Your task to perform on an android device: toggle notifications settings in the gmail app Image 0: 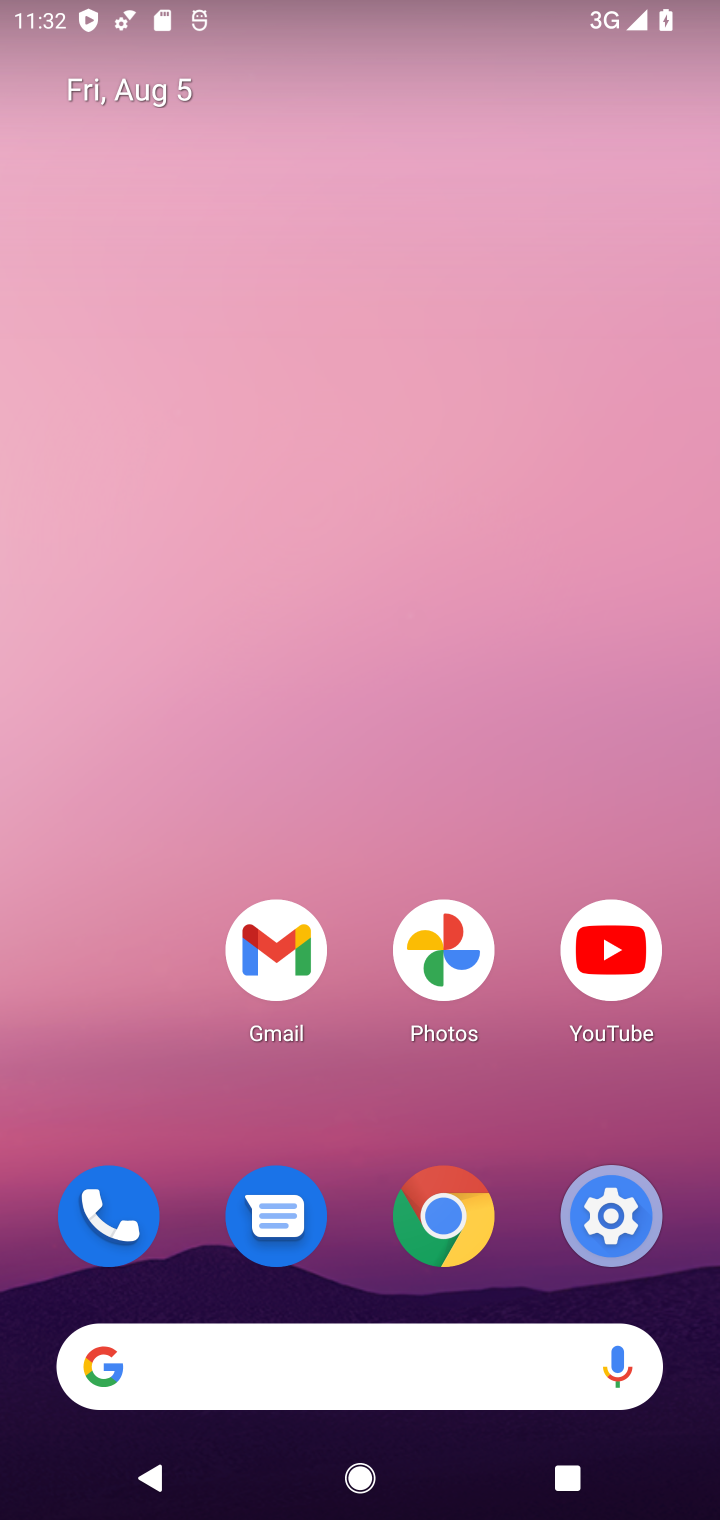
Step 0: click (265, 979)
Your task to perform on an android device: toggle notifications settings in the gmail app Image 1: 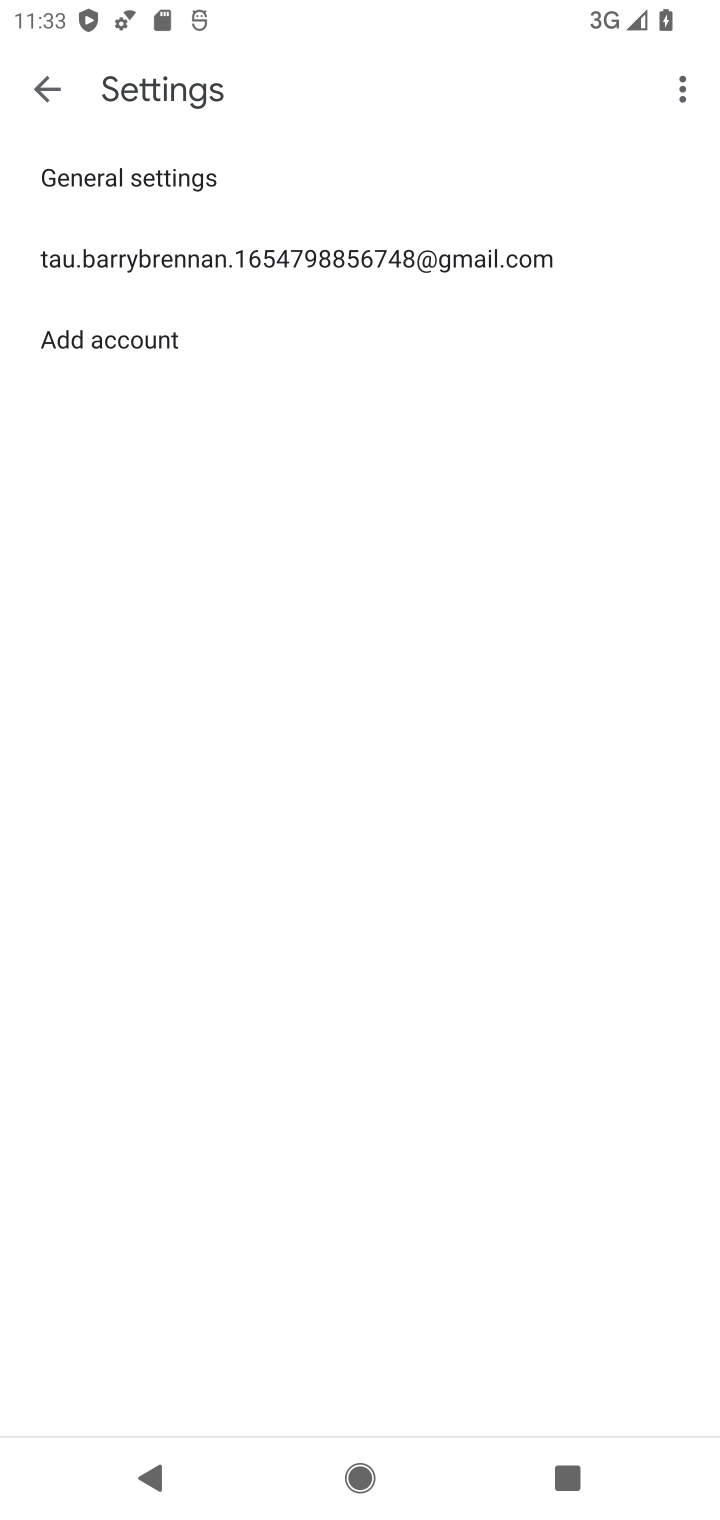
Step 1: click (325, 254)
Your task to perform on an android device: toggle notifications settings in the gmail app Image 2: 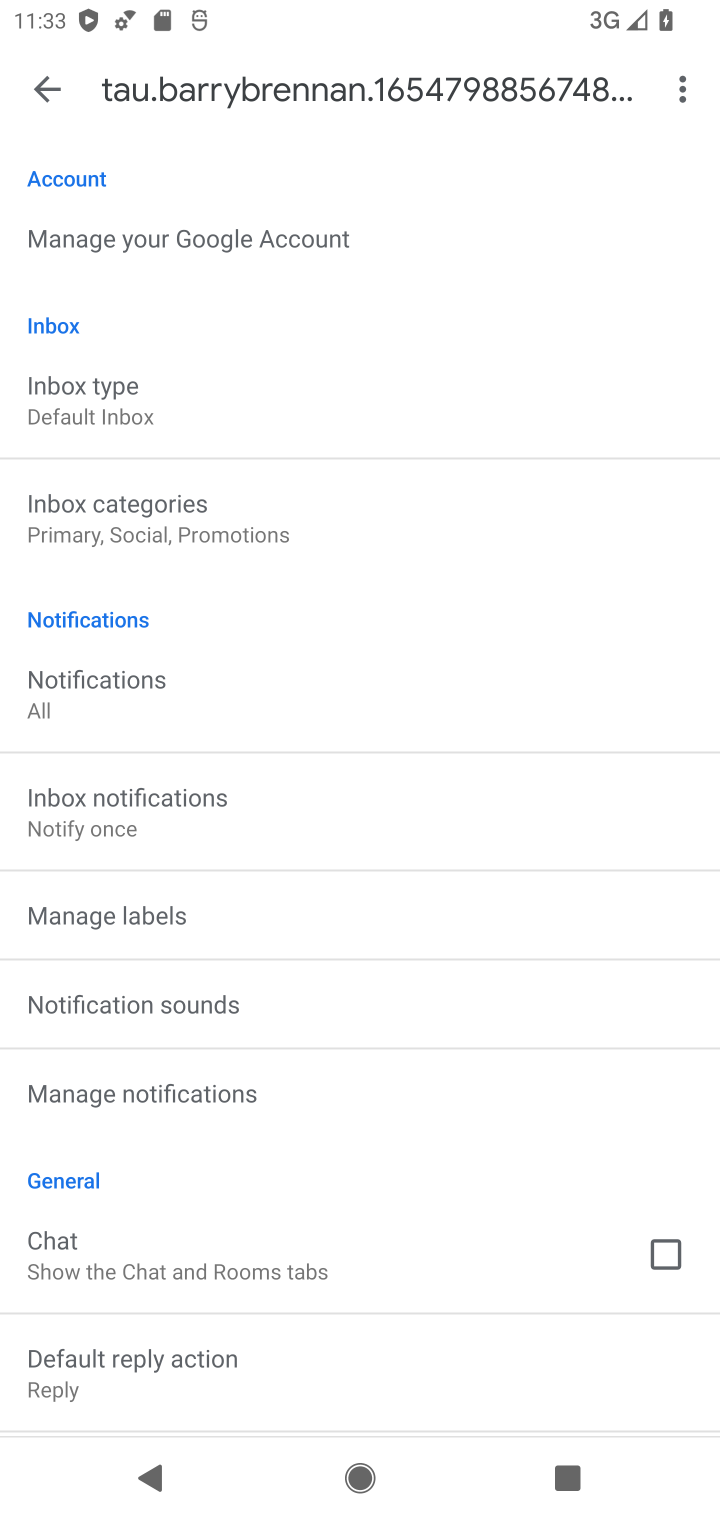
Step 2: click (152, 1100)
Your task to perform on an android device: toggle notifications settings in the gmail app Image 3: 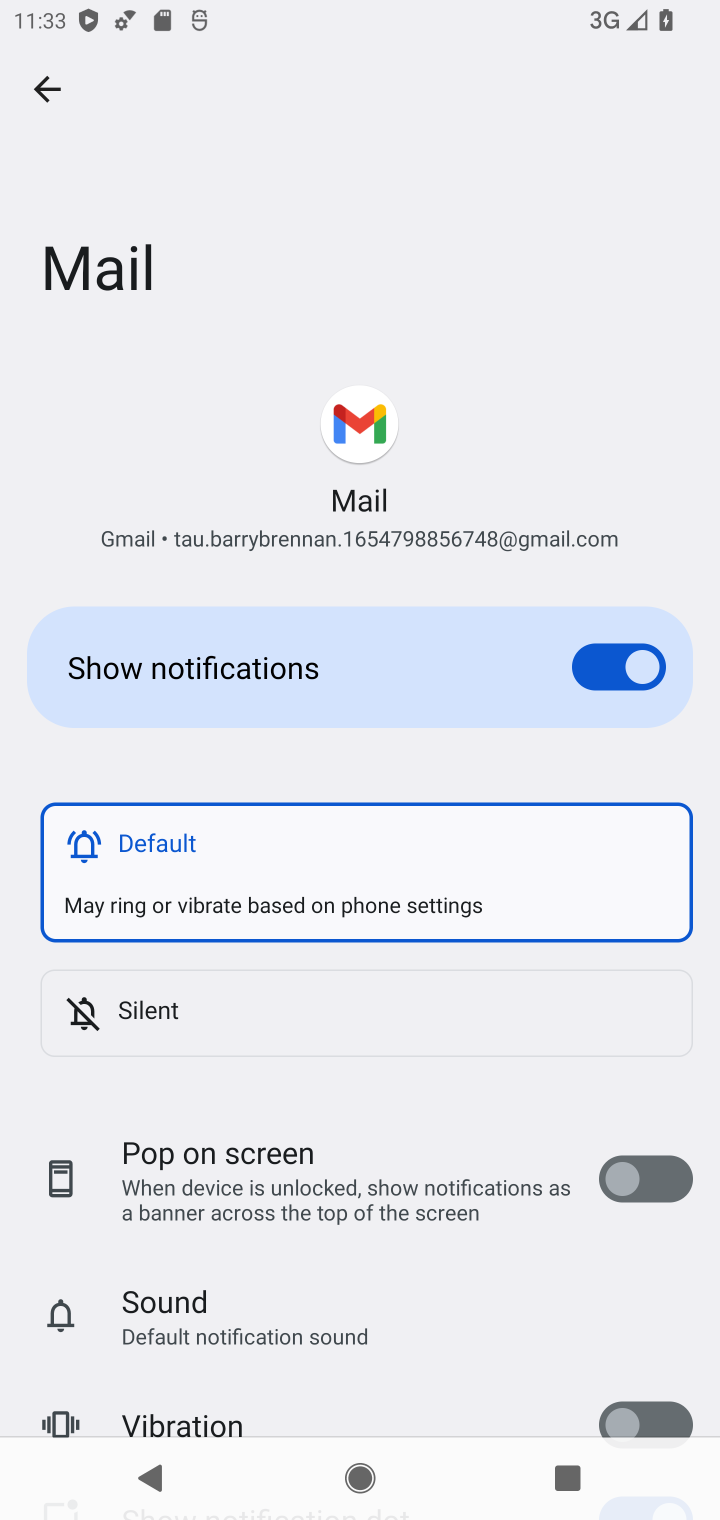
Step 3: click (596, 665)
Your task to perform on an android device: toggle notifications settings in the gmail app Image 4: 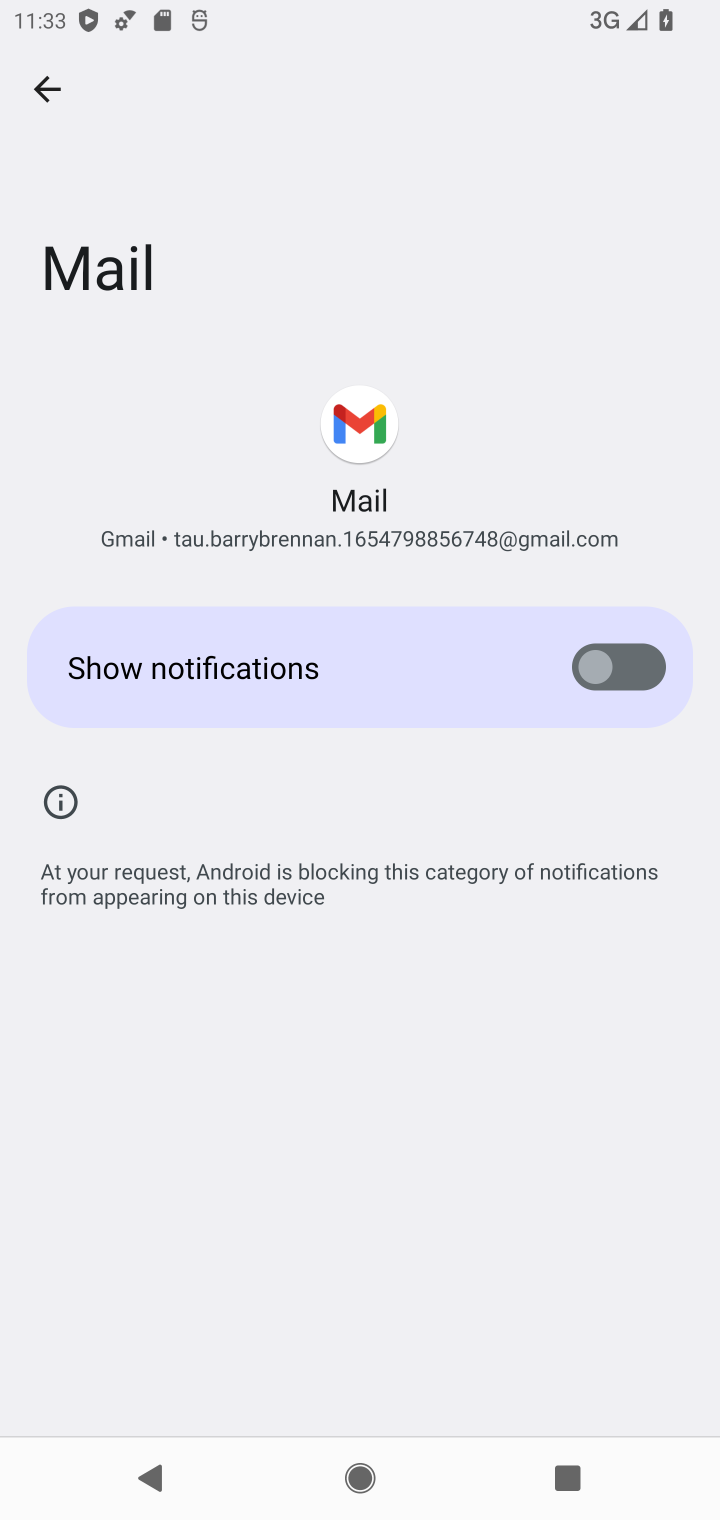
Step 4: task complete